Your task to perform on an android device: What's the weather? Image 0: 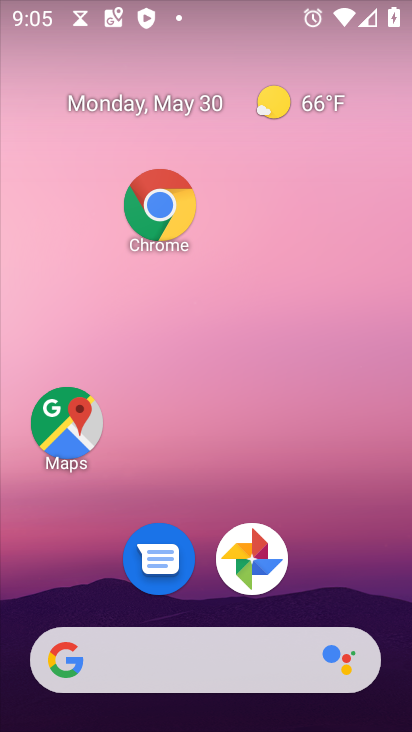
Step 0: drag from (24, 219) to (392, 494)
Your task to perform on an android device: What's the weather? Image 1: 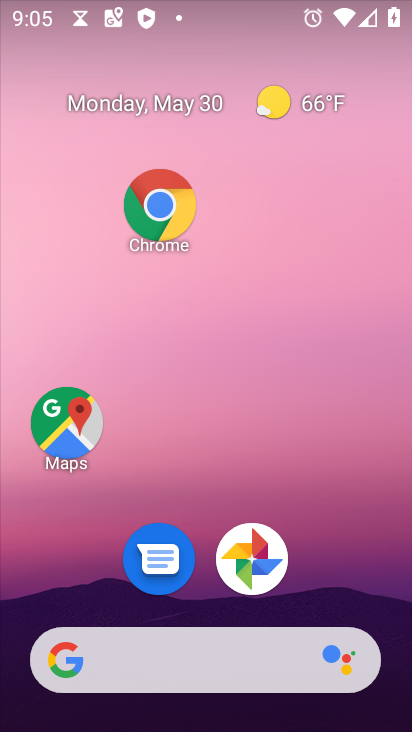
Step 1: drag from (31, 243) to (392, 255)
Your task to perform on an android device: What's the weather? Image 2: 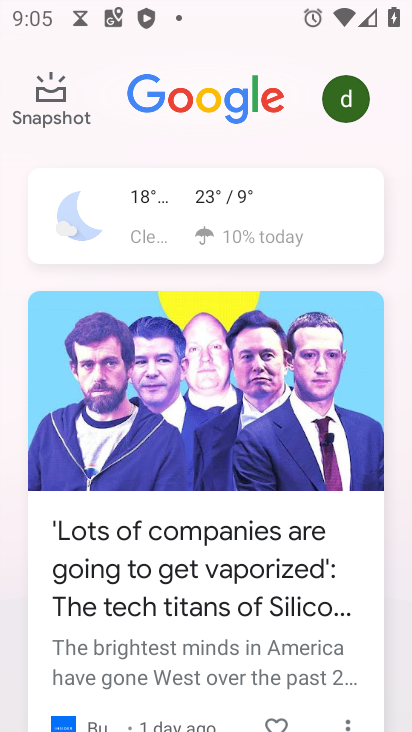
Step 2: click (184, 231)
Your task to perform on an android device: What's the weather? Image 3: 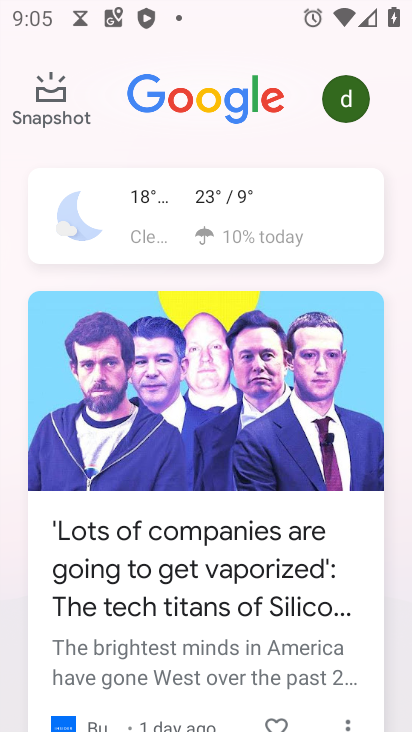
Step 3: click (184, 231)
Your task to perform on an android device: What's the weather? Image 4: 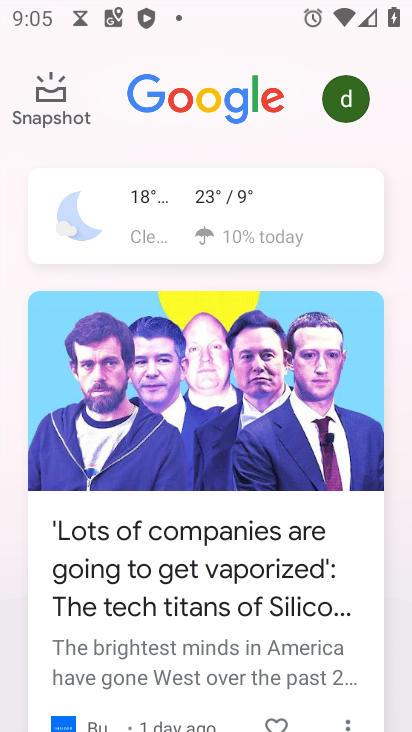
Step 4: click (184, 231)
Your task to perform on an android device: What's the weather? Image 5: 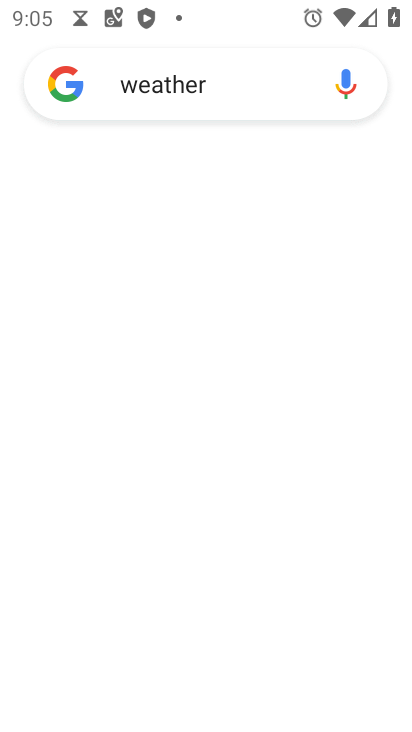
Step 5: click (185, 230)
Your task to perform on an android device: What's the weather? Image 6: 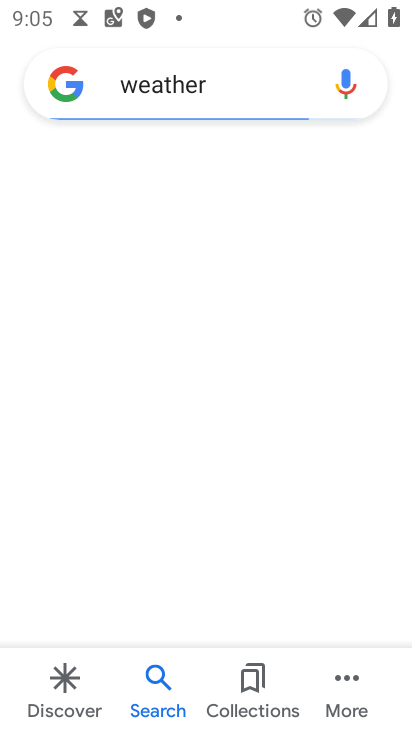
Step 6: click (185, 230)
Your task to perform on an android device: What's the weather? Image 7: 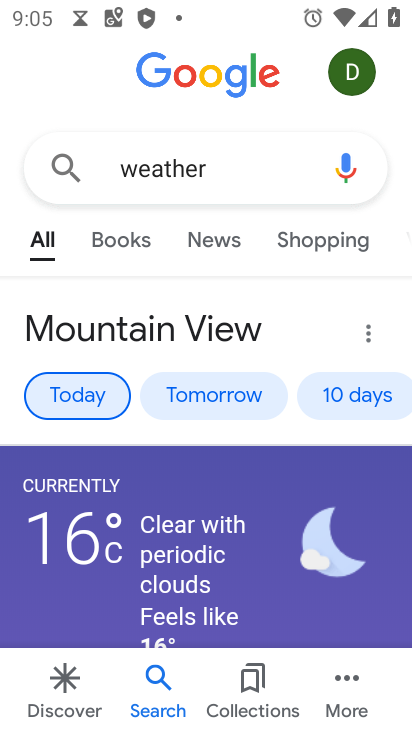
Step 7: task complete